Your task to perform on an android device: see sites visited before in the chrome app Image 0: 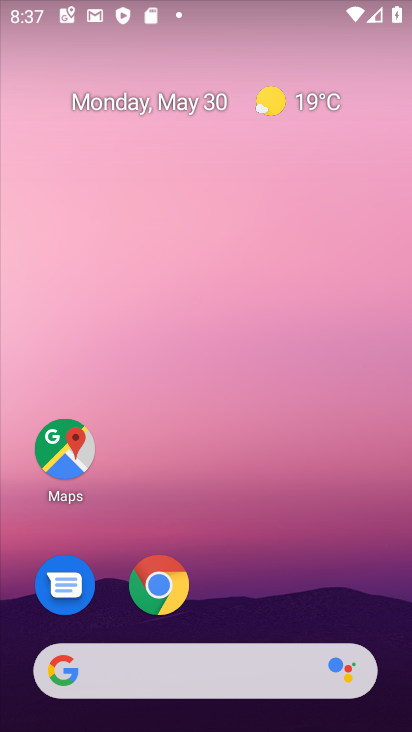
Step 0: click (378, 21)
Your task to perform on an android device: see sites visited before in the chrome app Image 1: 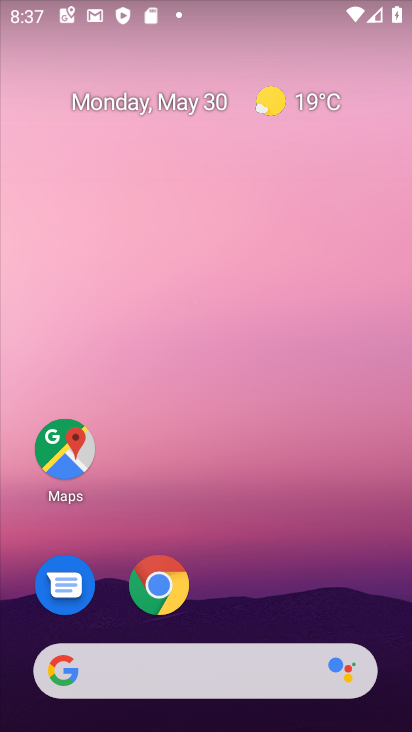
Step 1: drag from (209, 586) to (268, 192)
Your task to perform on an android device: see sites visited before in the chrome app Image 2: 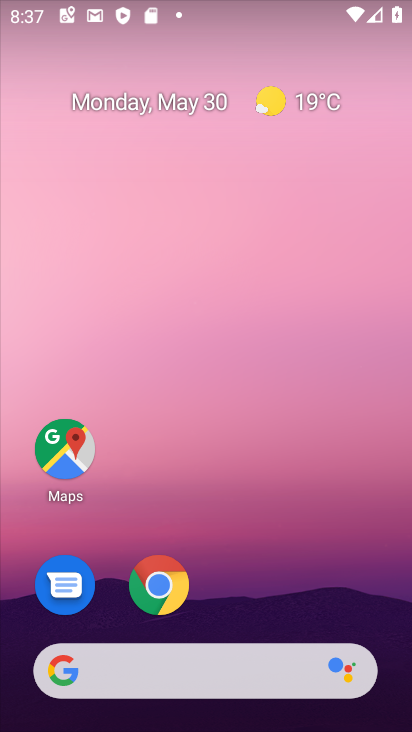
Step 2: click (157, 577)
Your task to perform on an android device: see sites visited before in the chrome app Image 3: 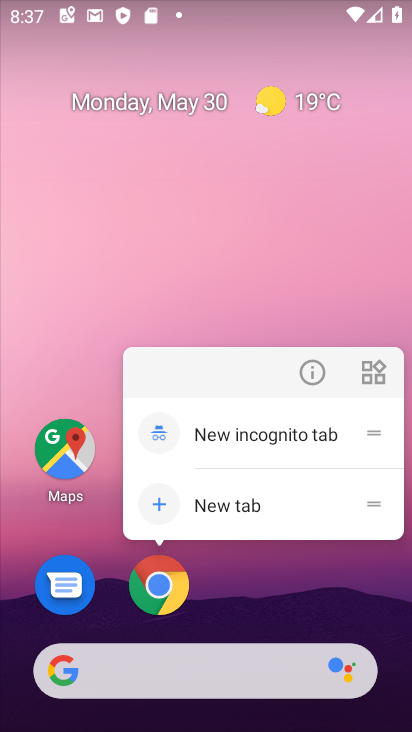
Step 3: click (306, 362)
Your task to perform on an android device: see sites visited before in the chrome app Image 4: 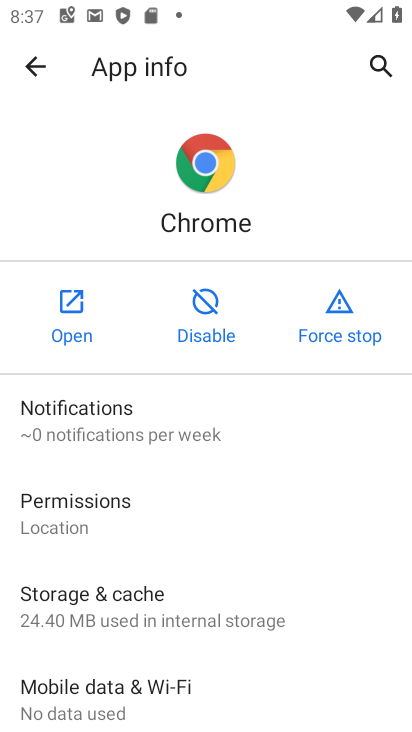
Step 4: click (68, 322)
Your task to perform on an android device: see sites visited before in the chrome app Image 5: 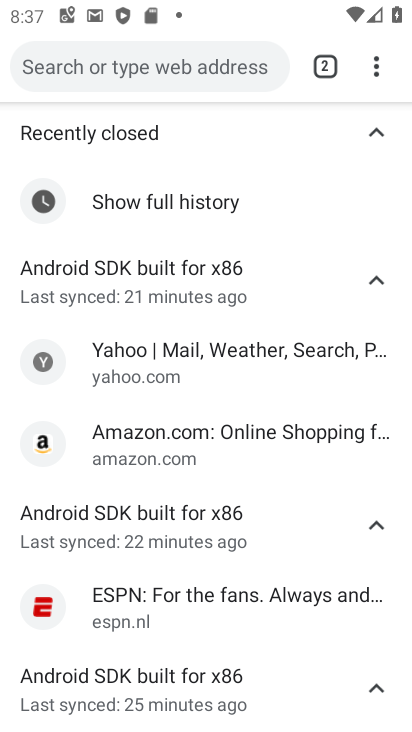
Step 5: task complete